Your task to perform on an android device: Go to display settings Image 0: 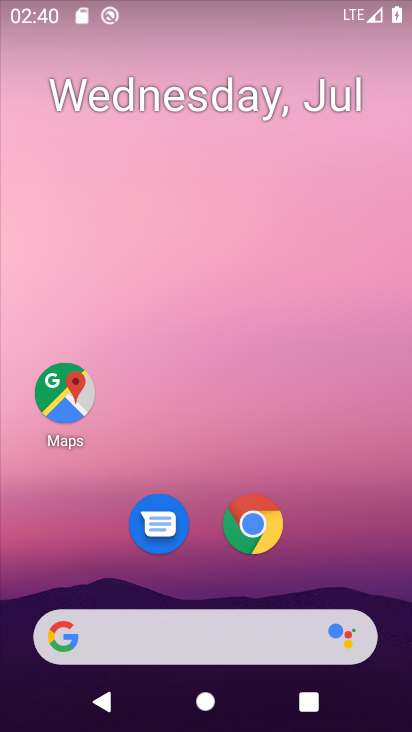
Step 0: drag from (327, 565) to (307, 52)
Your task to perform on an android device: Go to display settings Image 1: 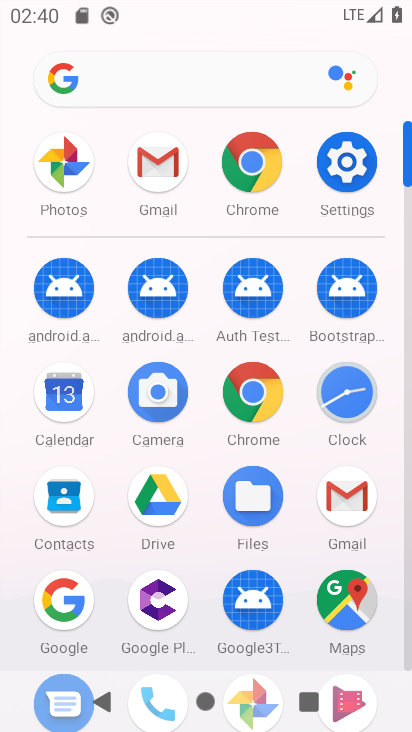
Step 1: click (341, 174)
Your task to perform on an android device: Go to display settings Image 2: 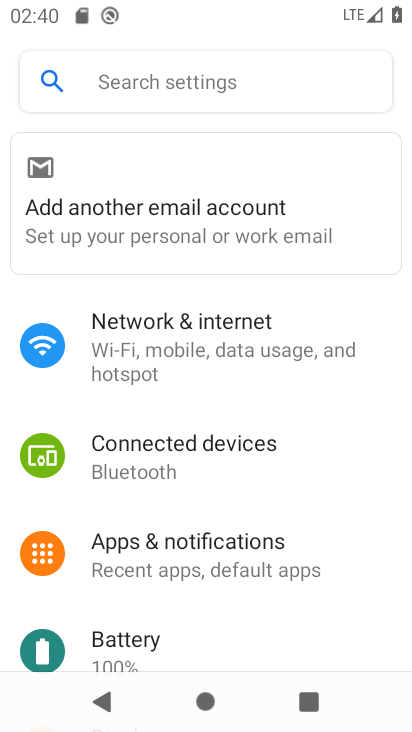
Step 2: drag from (242, 568) to (241, 130)
Your task to perform on an android device: Go to display settings Image 3: 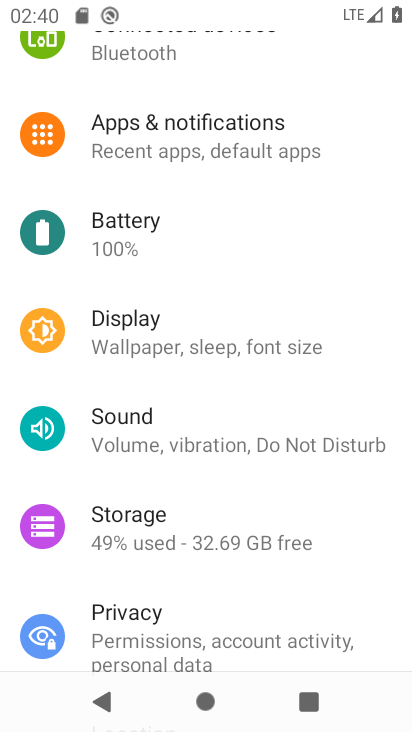
Step 3: click (174, 335)
Your task to perform on an android device: Go to display settings Image 4: 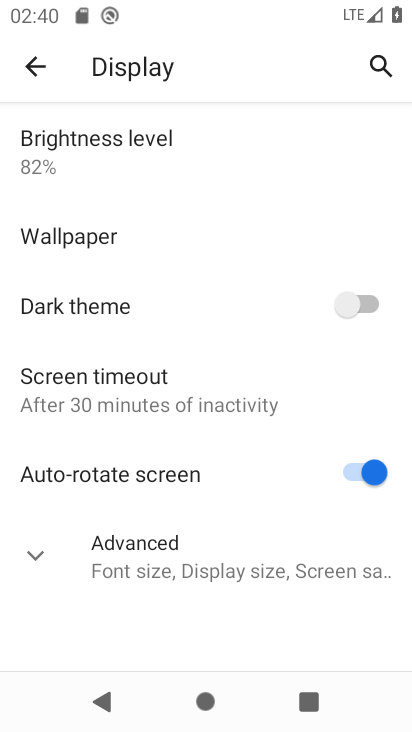
Step 4: task complete